Your task to perform on an android device: Open location settings Image 0: 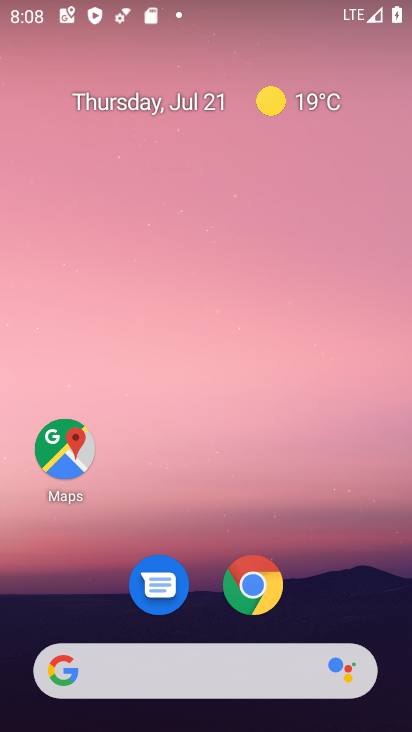
Step 0: drag from (328, 583) to (223, 18)
Your task to perform on an android device: Open location settings Image 1: 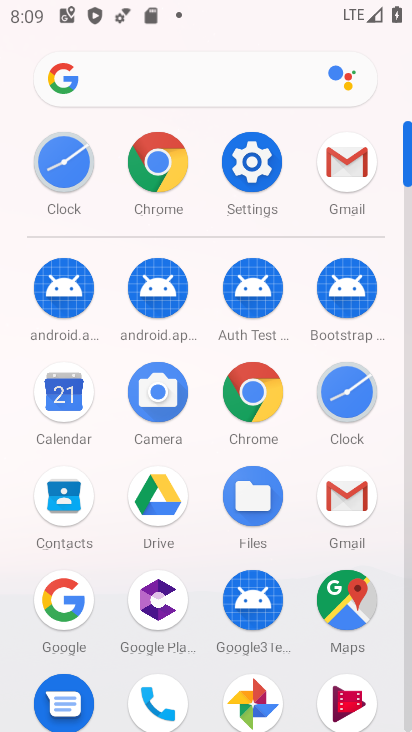
Step 1: click (258, 173)
Your task to perform on an android device: Open location settings Image 2: 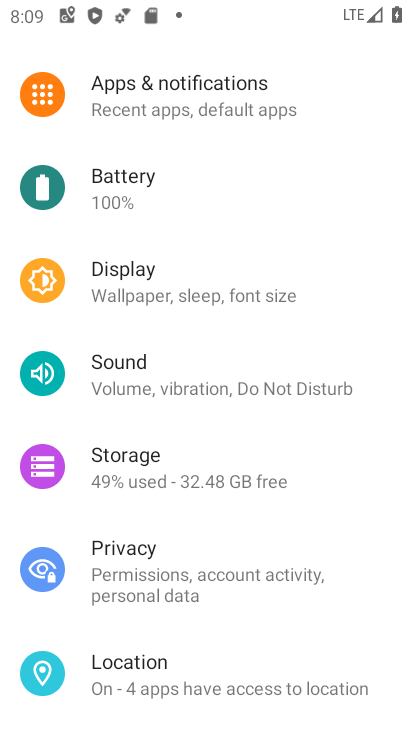
Step 2: click (209, 667)
Your task to perform on an android device: Open location settings Image 3: 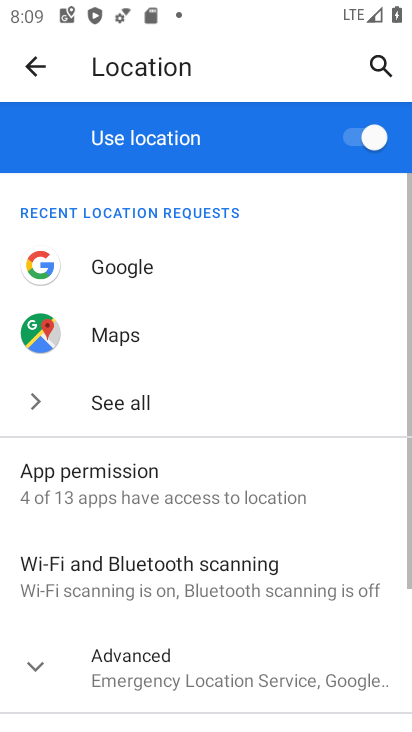
Step 3: task complete